Your task to perform on an android device: Open Amazon Image 0: 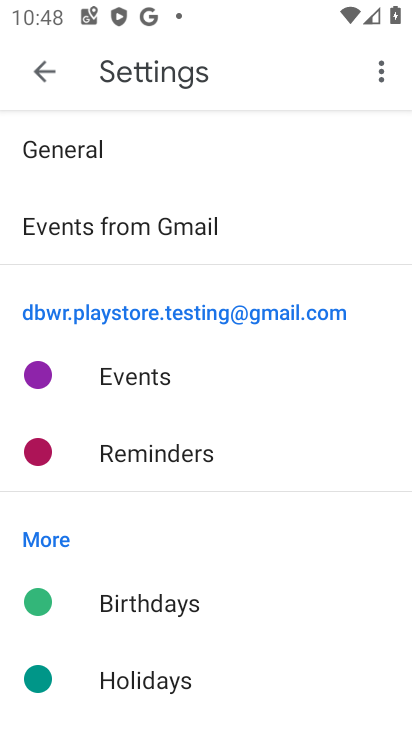
Step 0: press home button
Your task to perform on an android device: Open Amazon Image 1: 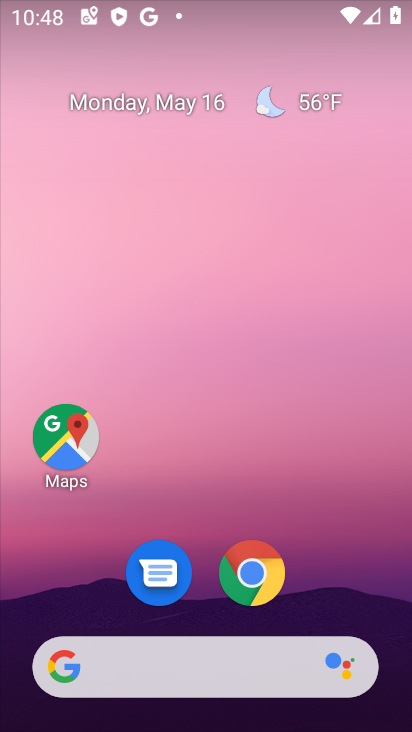
Step 1: click (272, 562)
Your task to perform on an android device: Open Amazon Image 2: 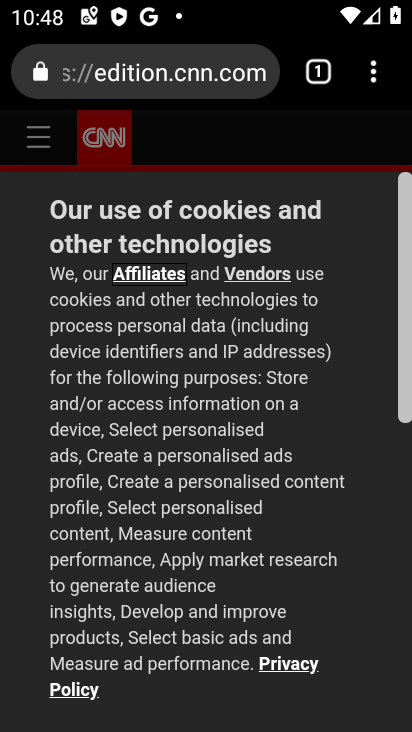
Step 2: click (330, 80)
Your task to perform on an android device: Open Amazon Image 3: 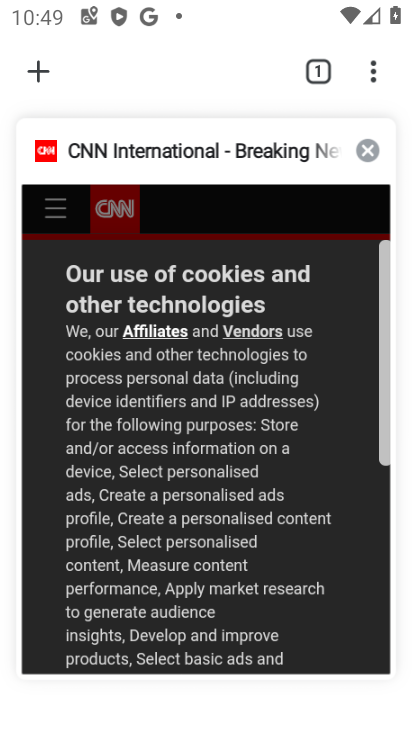
Step 3: click (363, 150)
Your task to perform on an android device: Open Amazon Image 4: 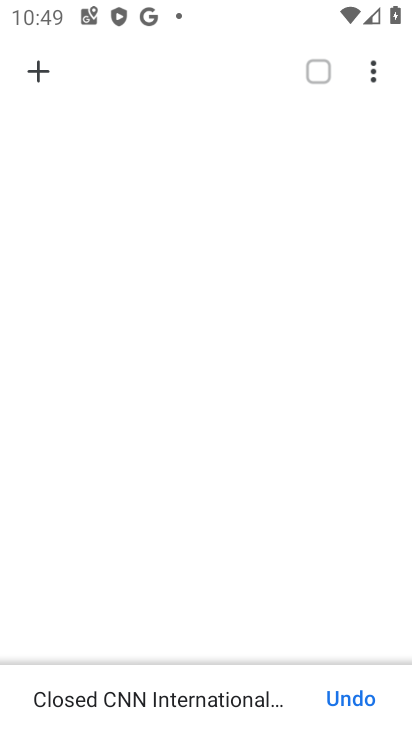
Step 4: click (45, 60)
Your task to perform on an android device: Open Amazon Image 5: 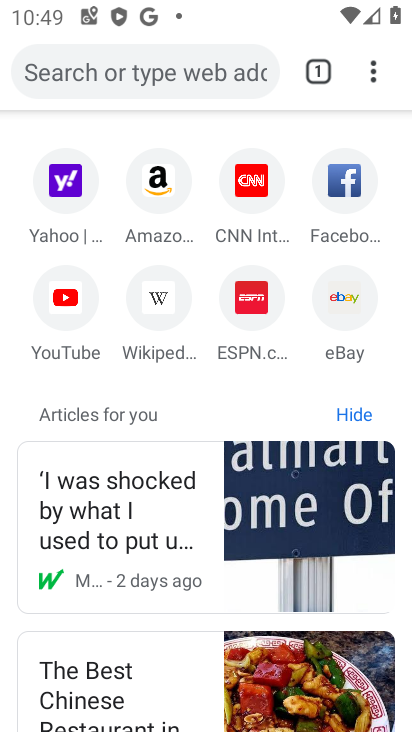
Step 5: click (164, 210)
Your task to perform on an android device: Open Amazon Image 6: 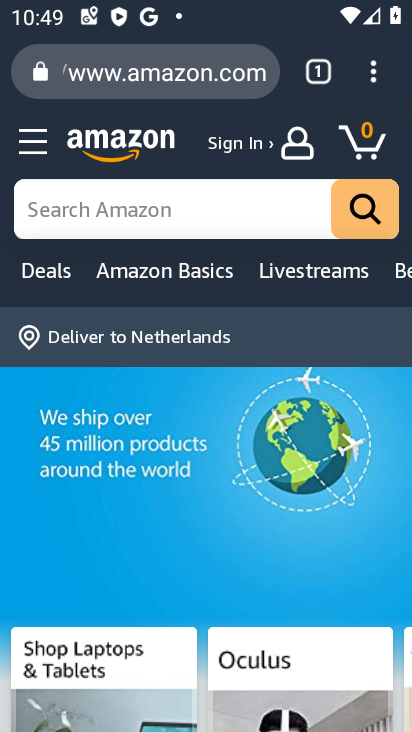
Step 6: task complete